Your task to perform on an android device: See recent photos Image 0: 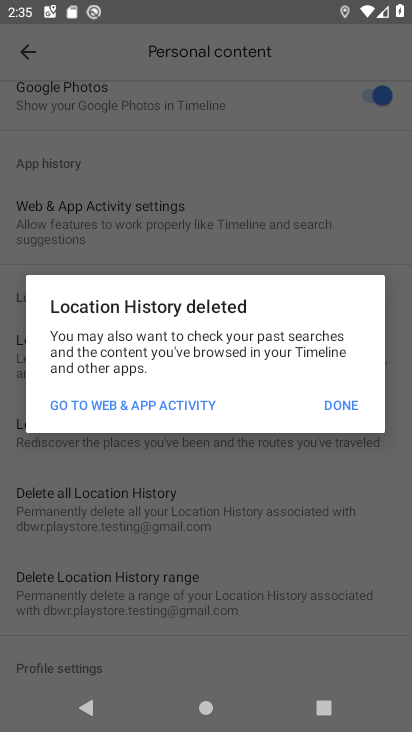
Step 0: press home button
Your task to perform on an android device: See recent photos Image 1: 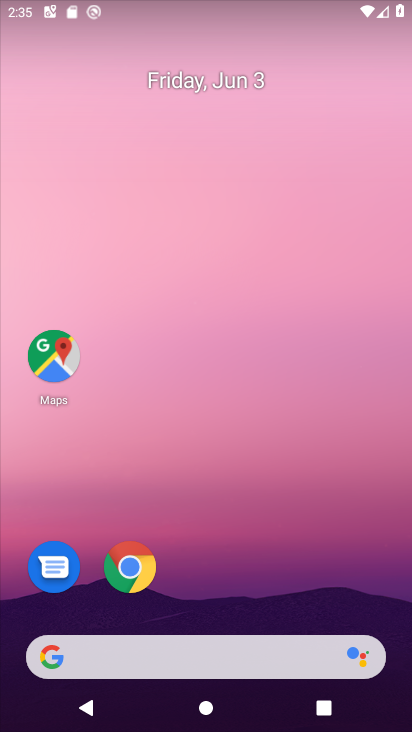
Step 1: drag from (263, 536) to (259, 262)
Your task to perform on an android device: See recent photos Image 2: 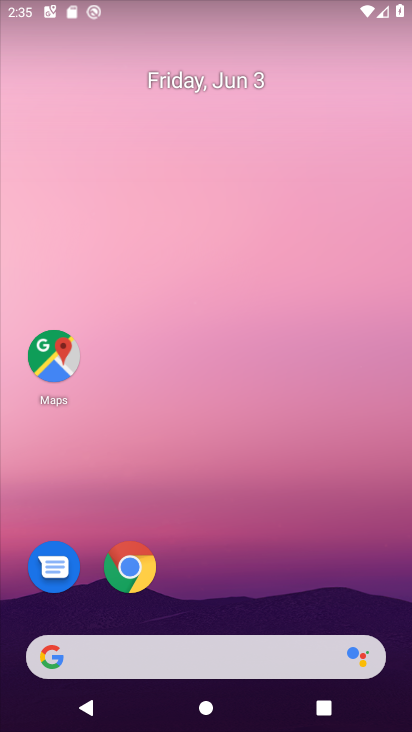
Step 2: drag from (228, 598) to (257, 225)
Your task to perform on an android device: See recent photos Image 3: 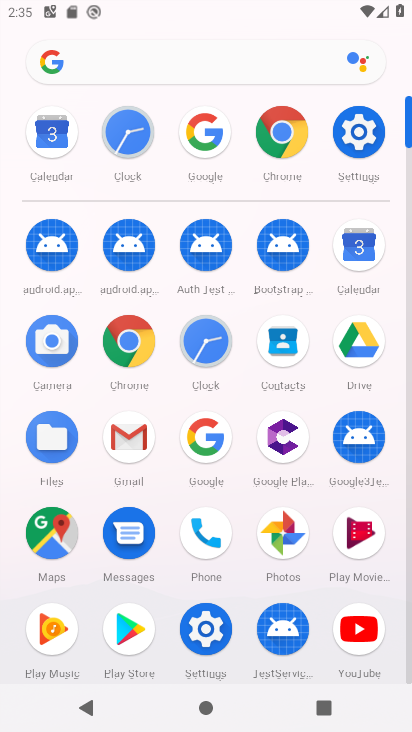
Step 3: click (273, 514)
Your task to perform on an android device: See recent photos Image 4: 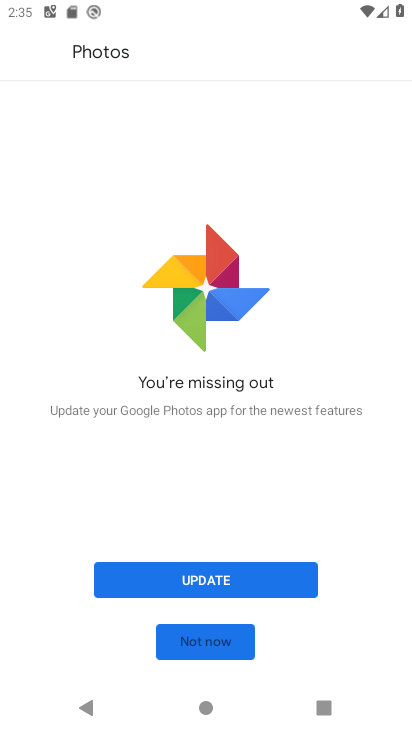
Step 4: click (212, 632)
Your task to perform on an android device: See recent photos Image 5: 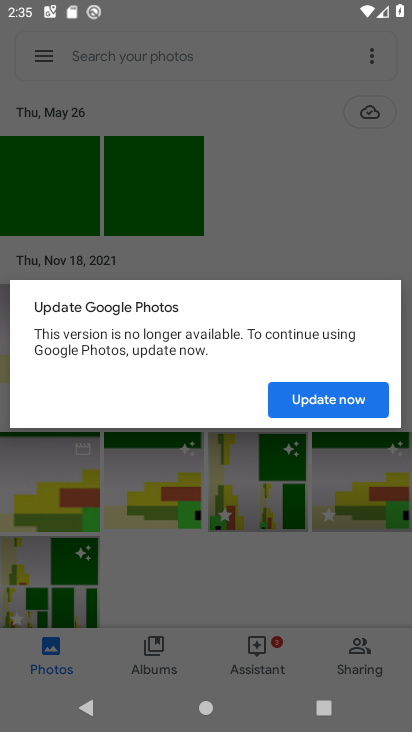
Step 5: click (327, 394)
Your task to perform on an android device: See recent photos Image 6: 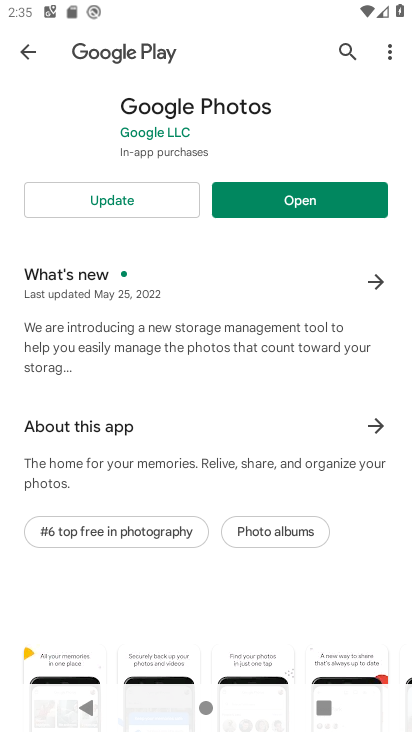
Step 6: press back button
Your task to perform on an android device: See recent photos Image 7: 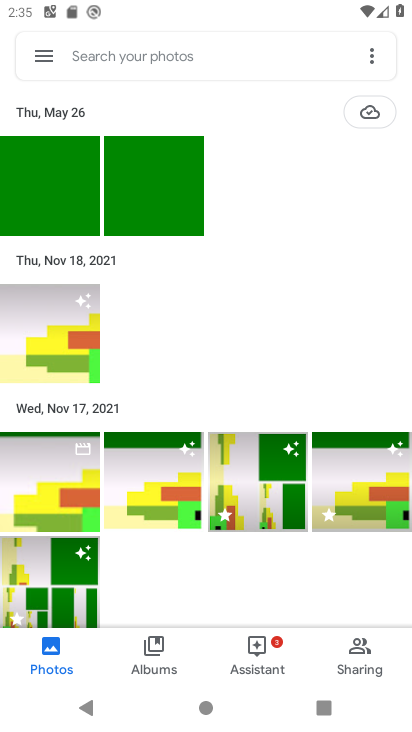
Step 7: click (47, 444)
Your task to perform on an android device: See recent photos Image 8: 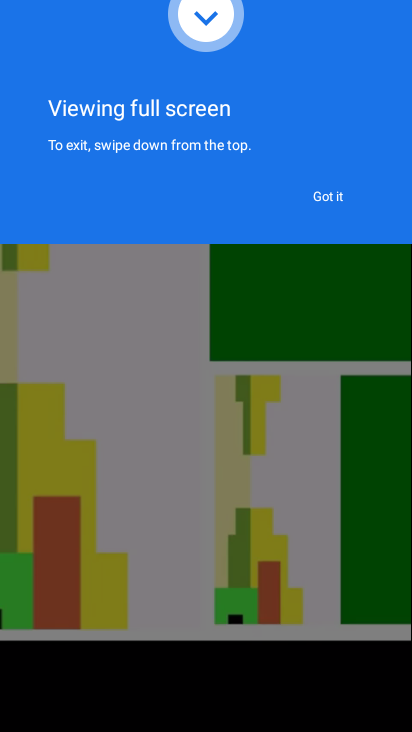
Step 8: task complete